Your task to perform on an android device: Open Amazon Image 0: 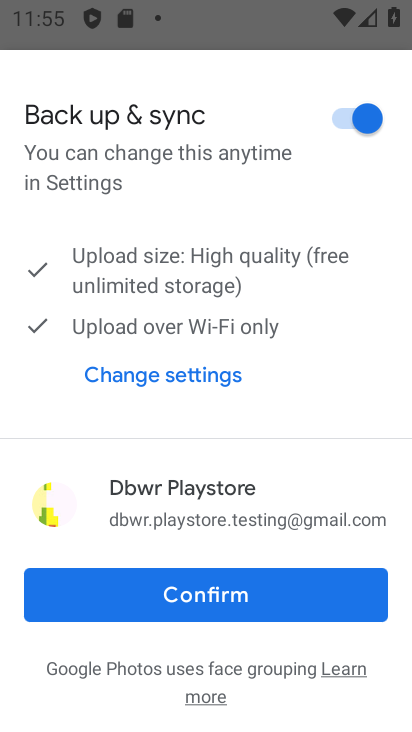
Step 0: press home button
Your task to perform on an android device: Open Amazon Image 1: 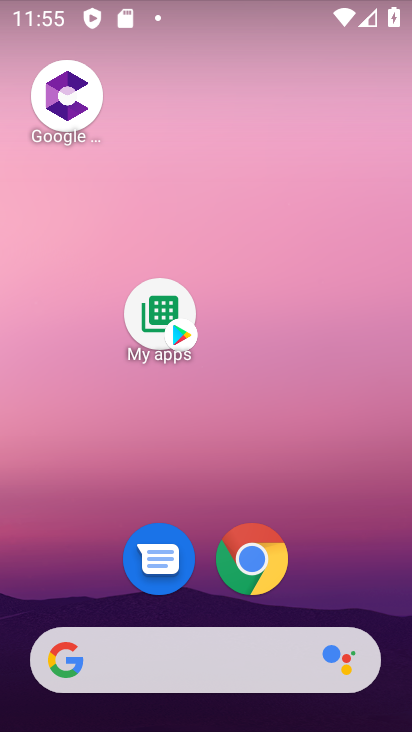
Step 1: drag from (405, 589) to (294, 49)
Your task to perform on an android device: Open Amazon Image 2: 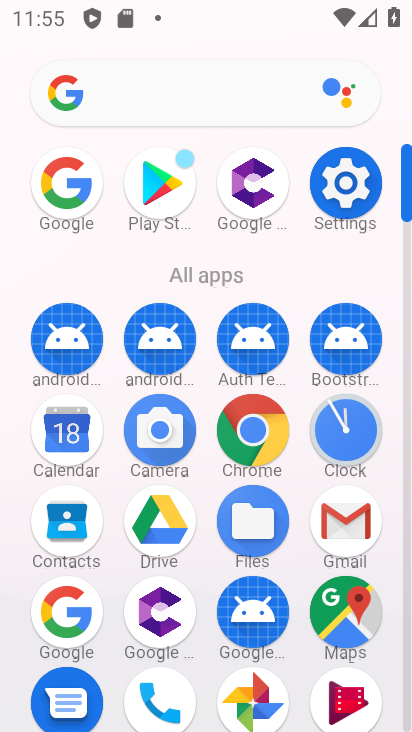
Step 2: click (255, 423)
Your task to perform on an android device: Open Amazon Image 3: 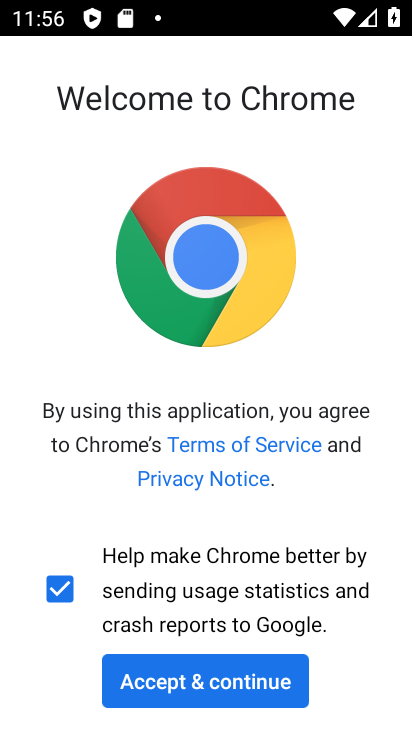
Step 3: click (272, 685)
Your task to perform on an android device: Open Amazon Image 4: 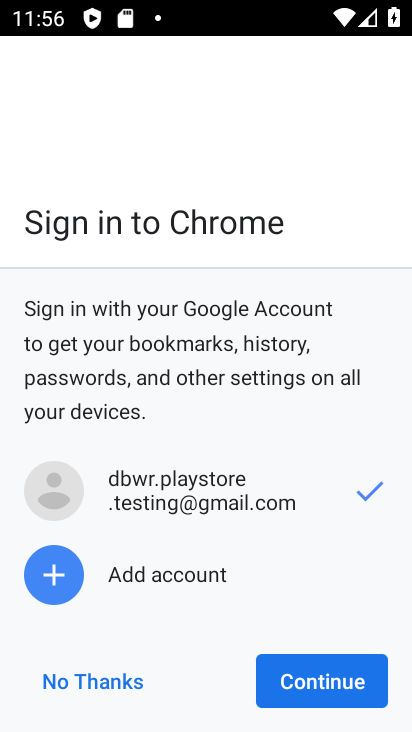
Step 4: click (283, 684)
Your task to perform on an android device: Open Amazon Image 5: 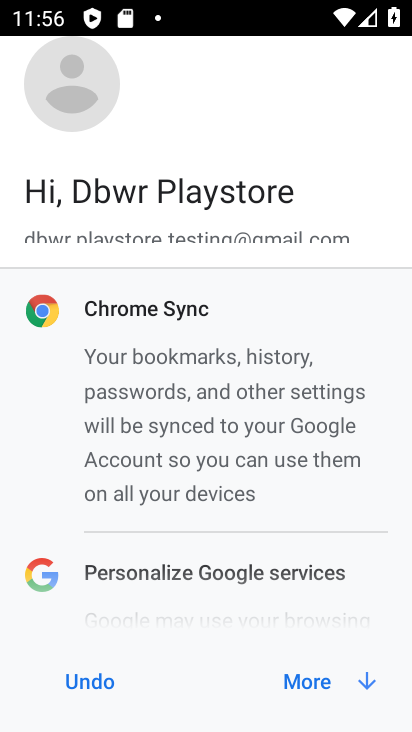
Step 5: click (283, 684)
Your task to perform on an android device: Open Amazon Image 6: 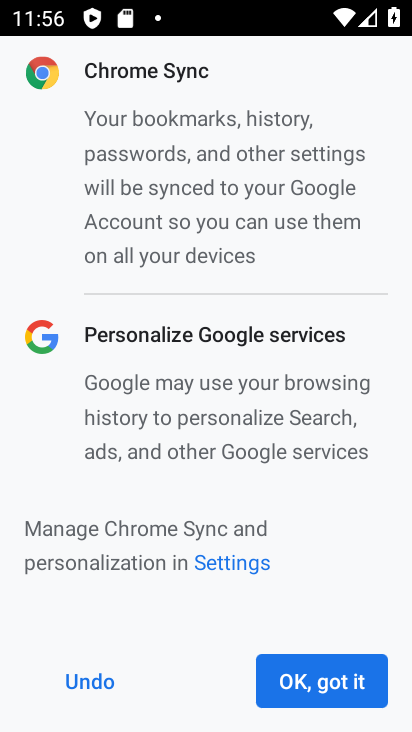
Step 6: click (283, 684)
Your task to perform on an android device: Open Amazon Image 7: 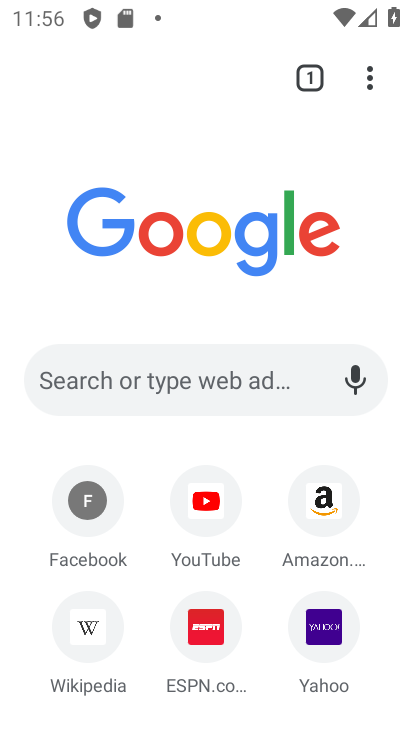
Step 7: click (327, 535)
Your task to perform on an android device: Open Amazon Image 8: 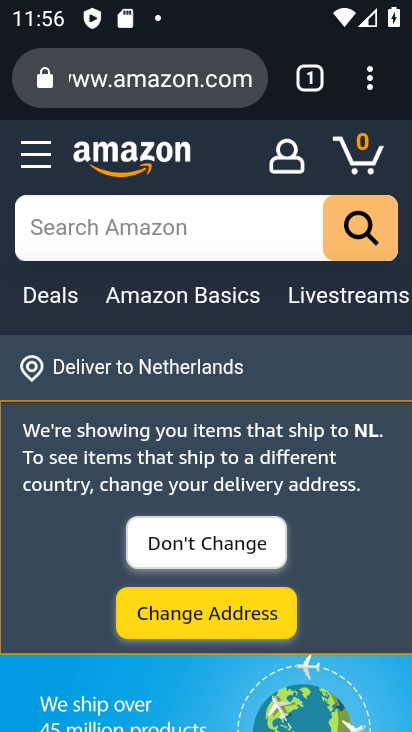
Step 8: task complete